Your task to perform on an android device: move an email to a new category in the gmail app Image 0: 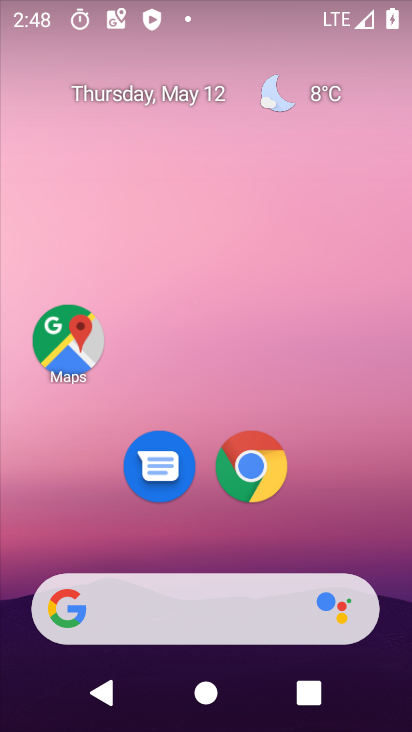
Step 0: drag from (307, 513) to (163, 154)
Your task to perform on an android device: move an email to a new category in the gmail app Image 1: 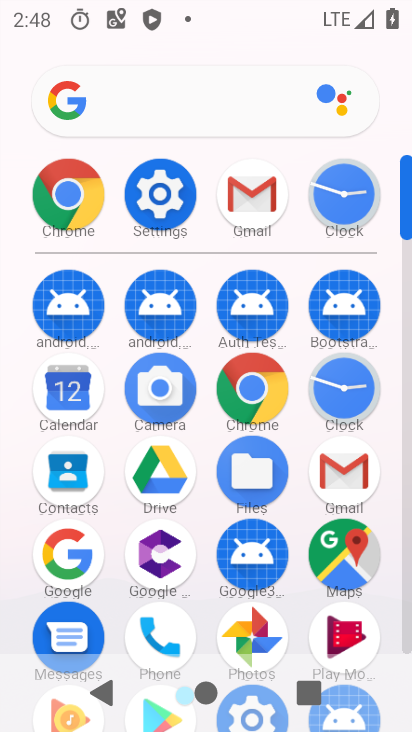
Step 1: click (336, 480)
Your task to perform on an android device: move an email to a new category in the gmail app Image 2: 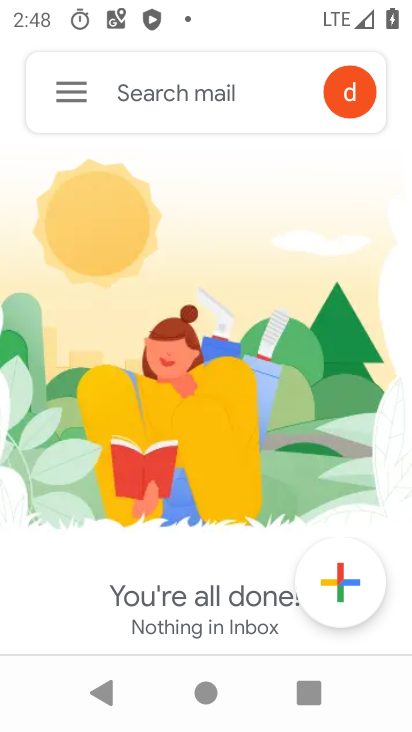
Step 2: click (79, 83)
Your task to perform on an android device: move an email to a new category in the gmail app Image 3: 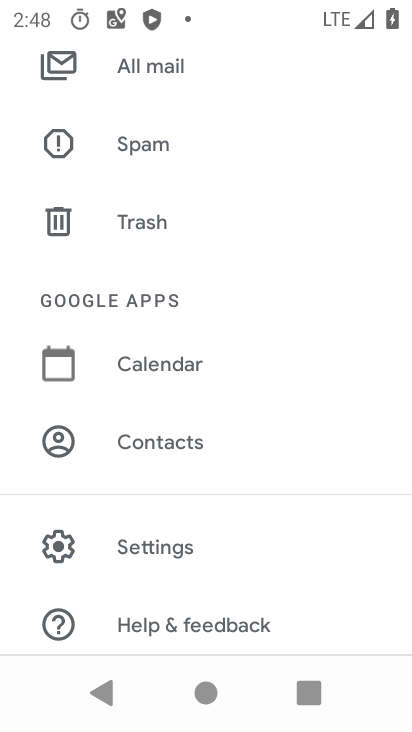
Step 3: task complete